Your task to perform on an android device: delete a single message in the gmail app Image 0: 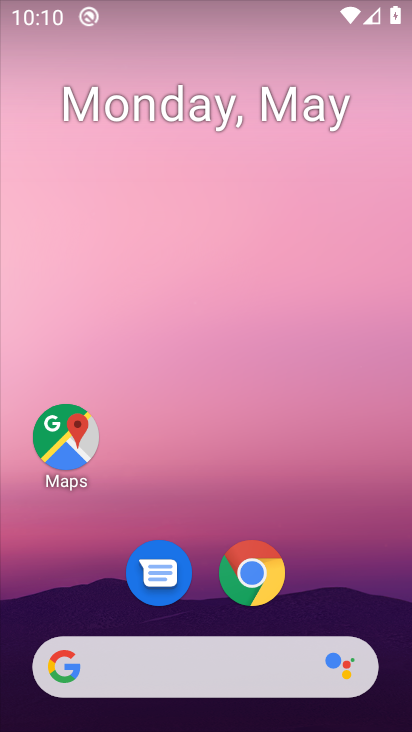
Step 0: drag from (315, 626) to (395, 31)
Your task to perform on an android device: delete a single message in the gmail app Image 1: 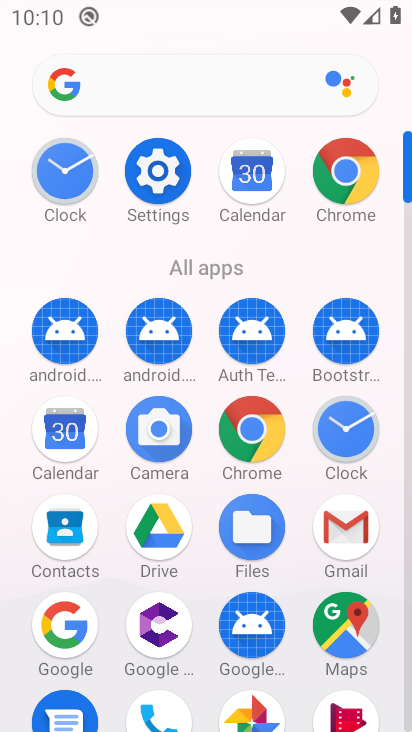
Step 1: click (336, 529)
Your task to perform on an android device: delete a single message in the gmail app Image 2: 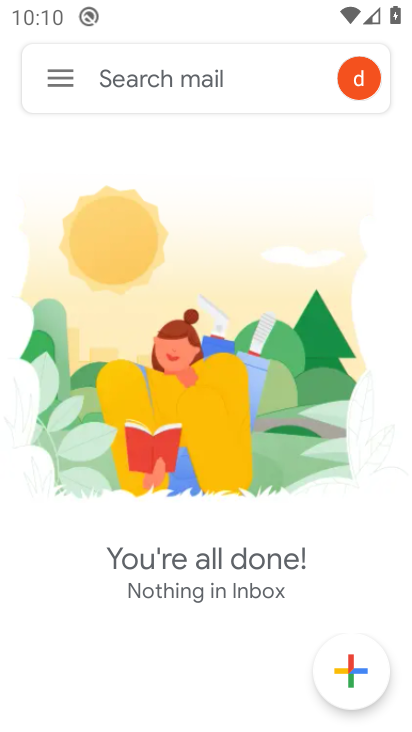
Step 2: click (51, 81)
Your task to perform on an android device: delete a single message in the gmail app Image 3: 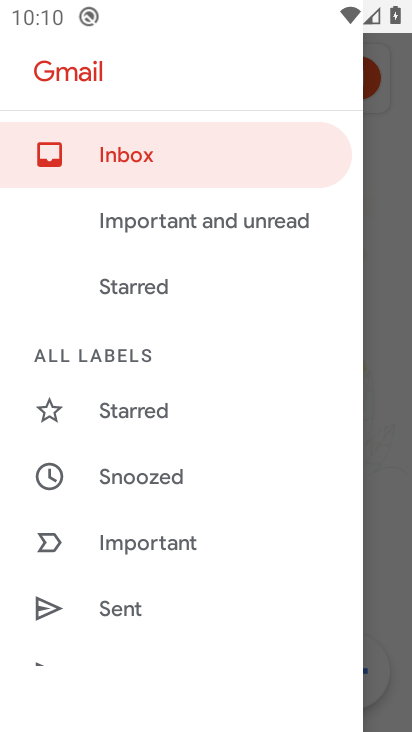
Step 3: drag from (109, 592) to (208, 200)
Your task to perform on an android device: delete a single message in the gmail app Image 4: 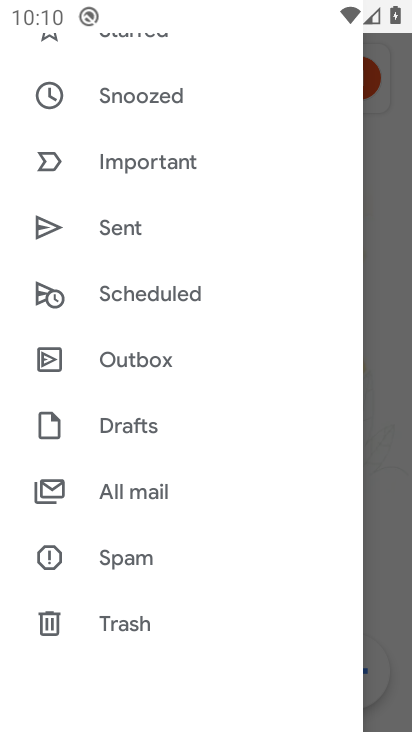
Step 4: drag from (149, 566) to (230, 234)
Your task to perform on an android device: delete a single message in the gmail app Image 5: 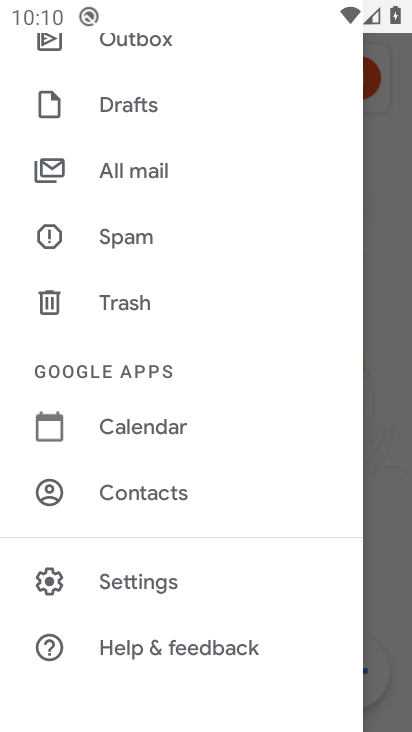
Step 5: click (137, 168)
Your task to perform on an android device: delete a single message in the gmail app Image 6: 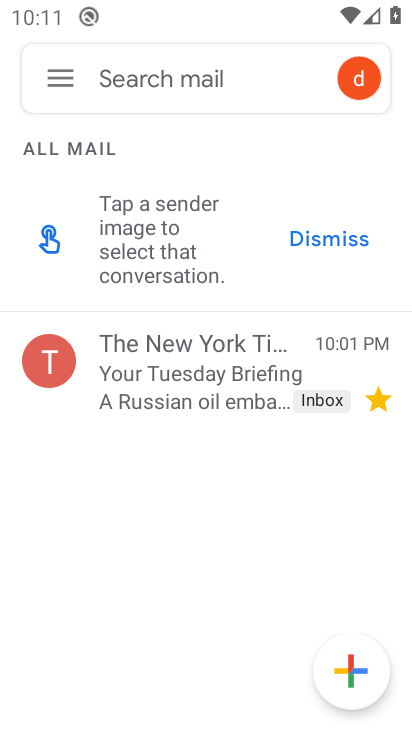
Step 6: click (166, 358)
Your task to perform on an android device: delete a single message in the gmail app Image 7: 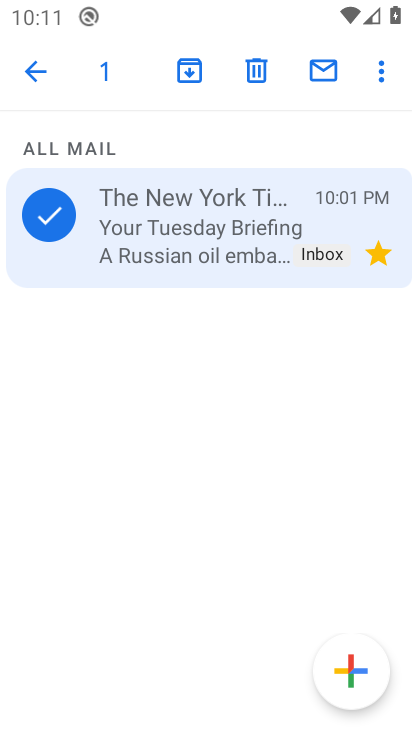
Step 7: click (247, 63)
Your task to perform on an android device: delete a single message in the gmail app Image 8: 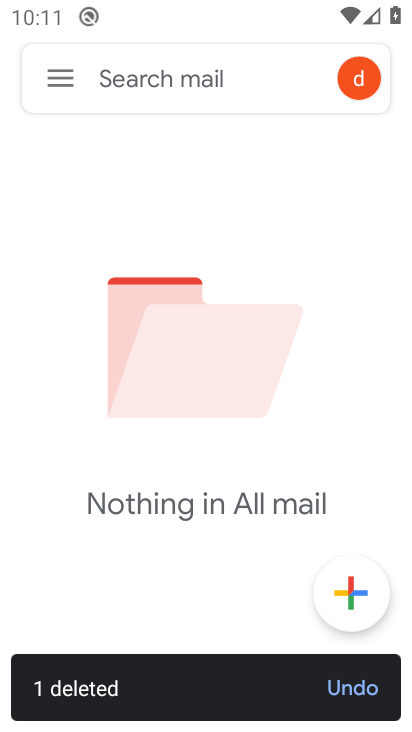
Step 8: task complete